Your task to perform on an android device: find photos in the google photos app Image 0: 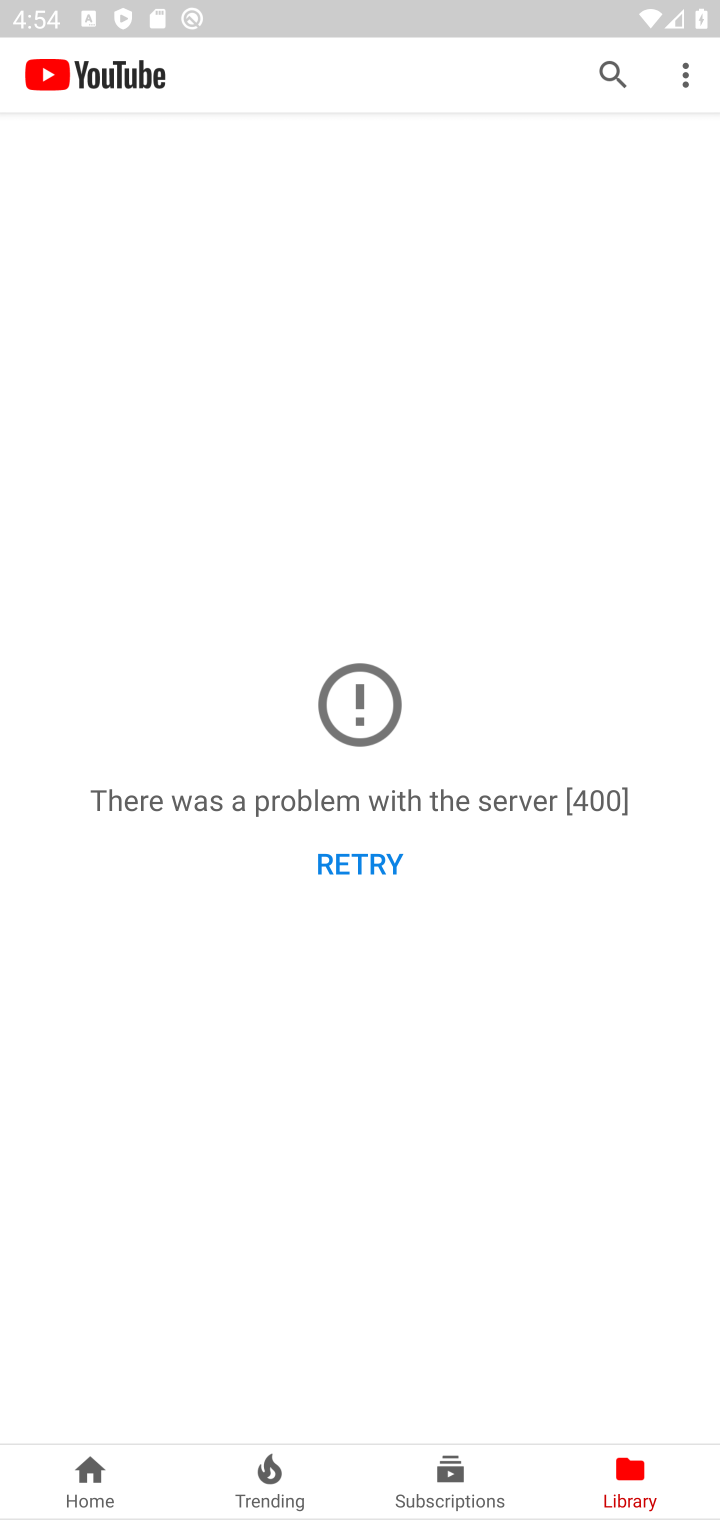
Step 0: press home button
Your task to perform on an android device: find photos in the google photos app Image 1: 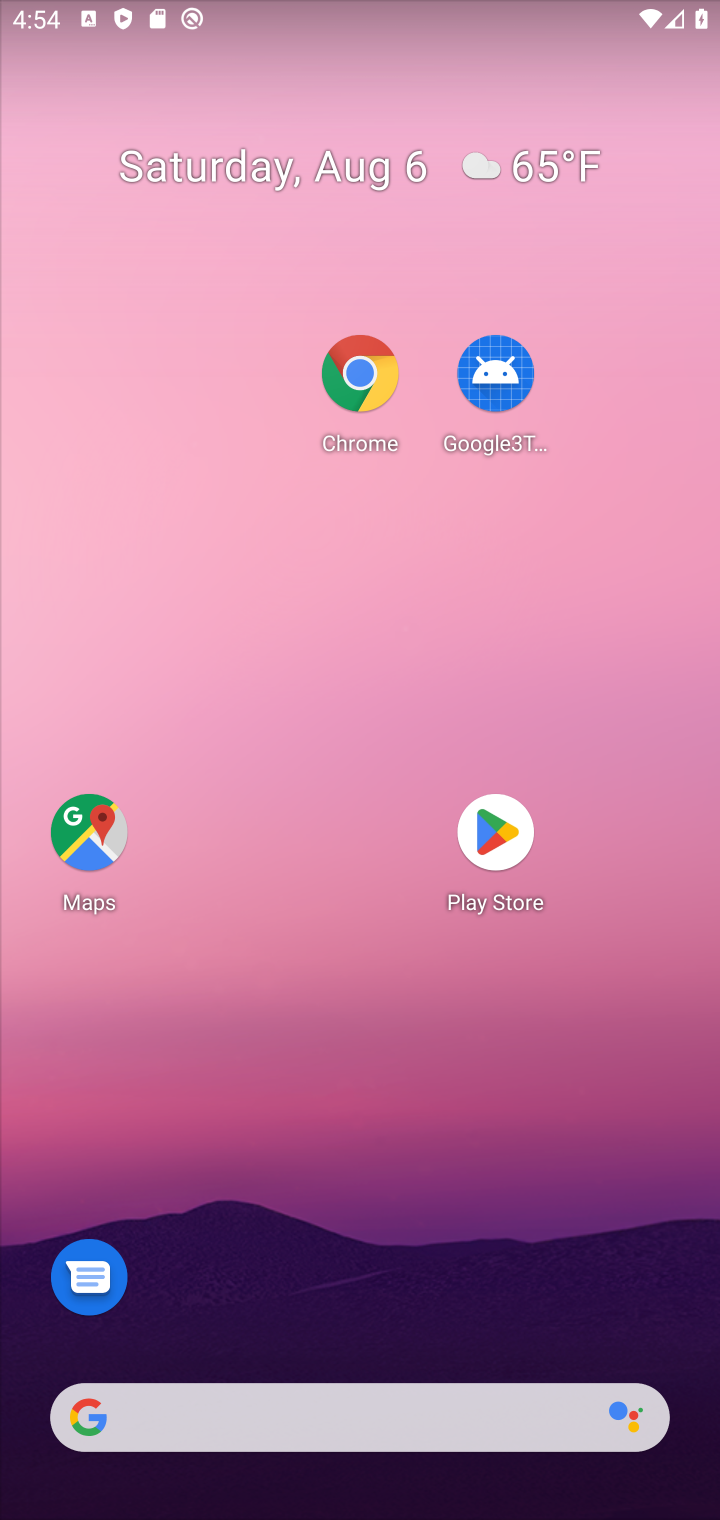
Step 1: drag from (303, 1423) to (365, 200)
Your task to perform on an android device: find photos in the google photos app Image 2: 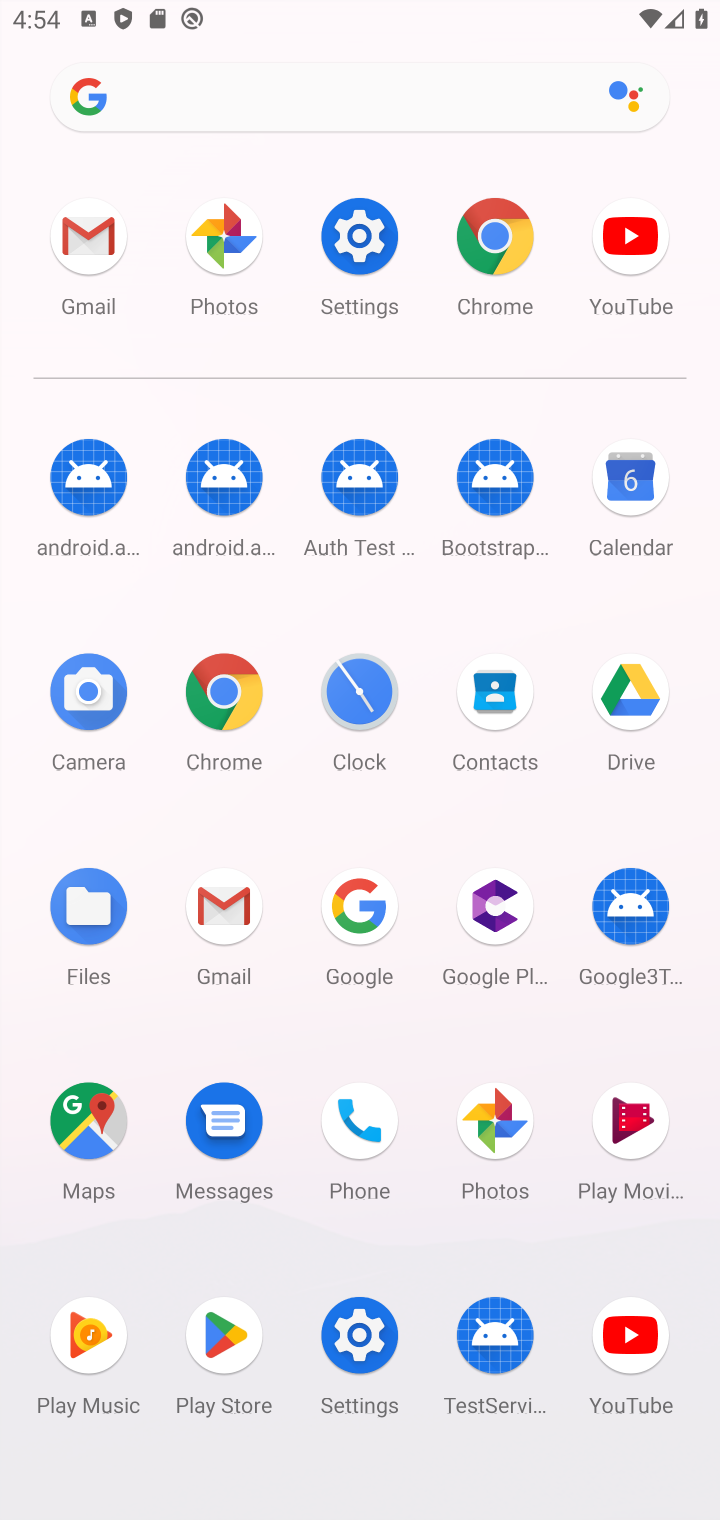
Step 2: click (502, 1116)
Your task to perform on an android device: find photos in the google photos app Image 3: 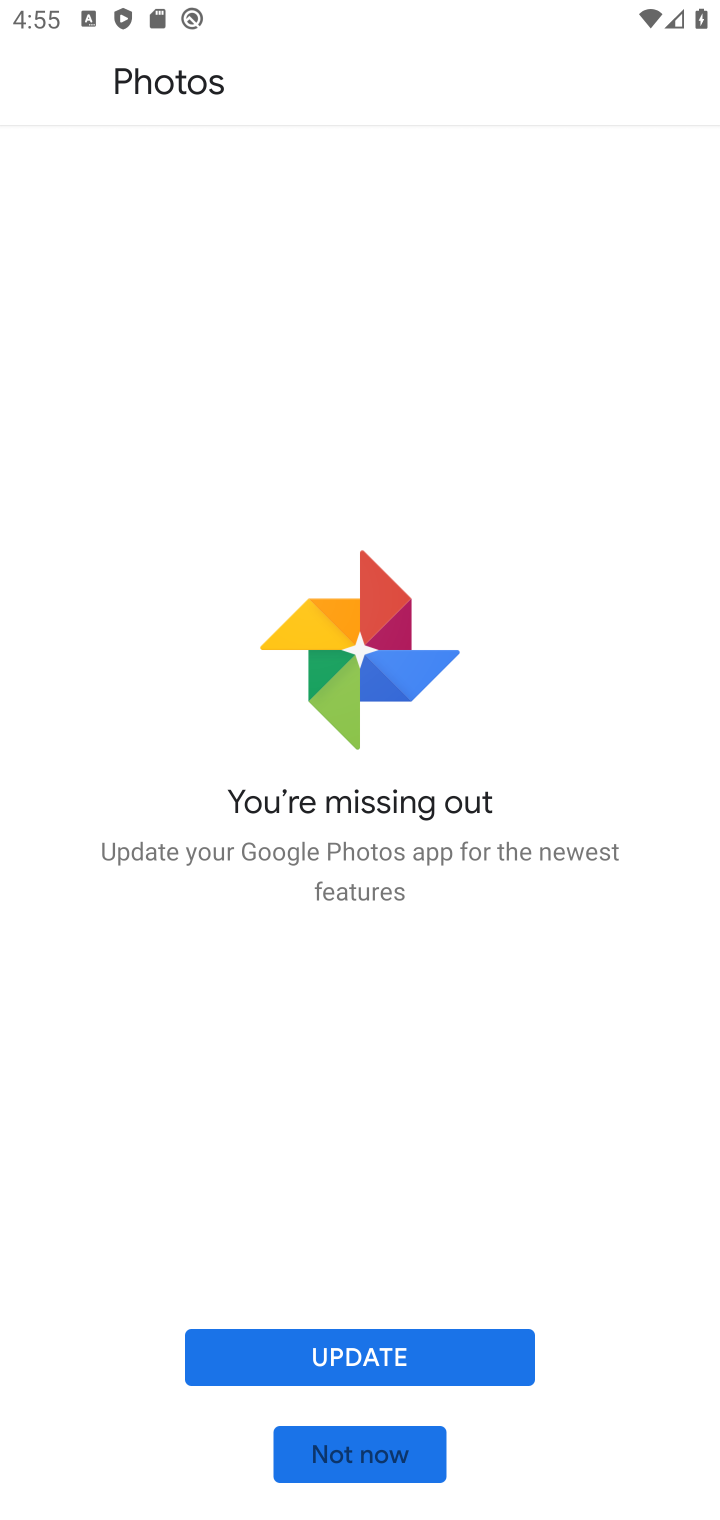
Step 3: click (323, 1356)
Your task to perform on an android device: find photos in the google photos app Image 4: 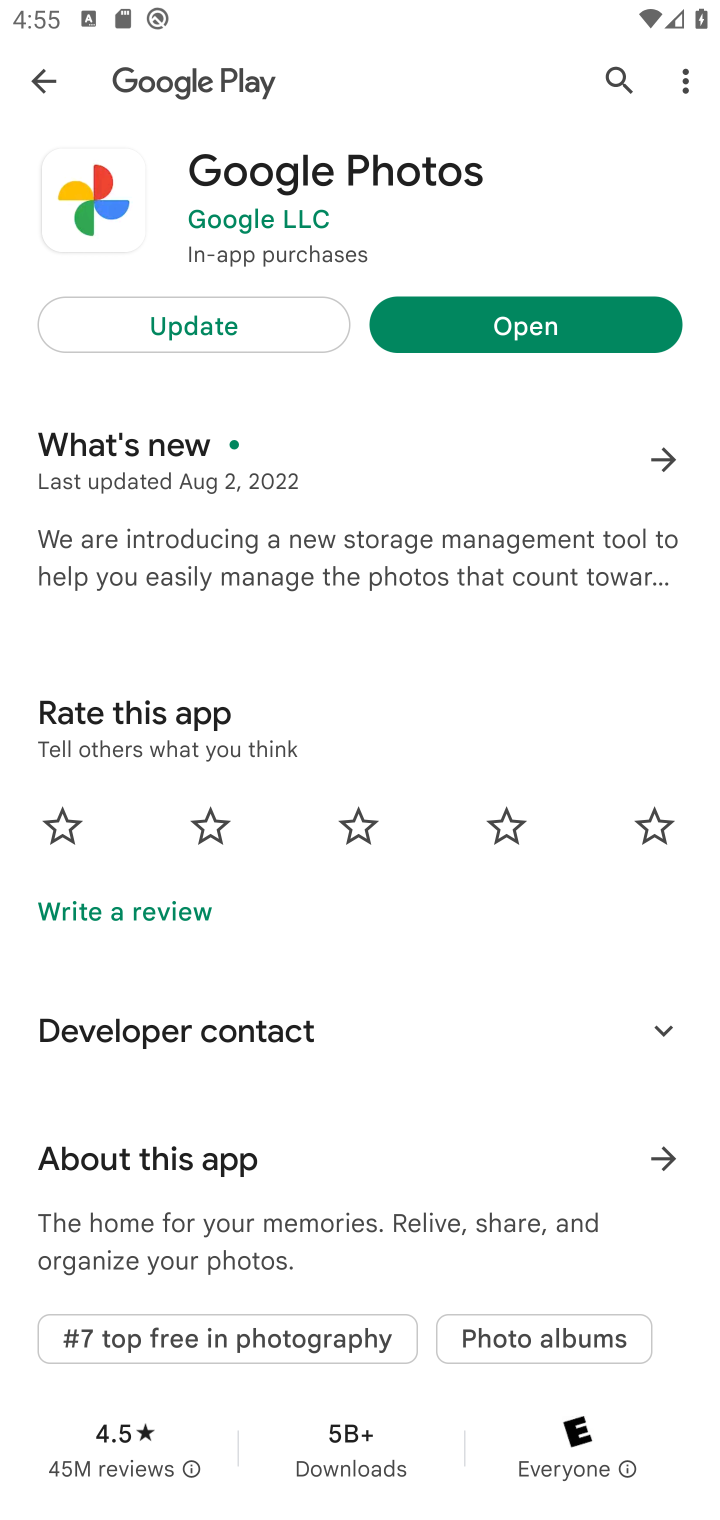
Step 4: click (257, 344)
Your task to perform on an android device: find photos in the google photos app Image 5: 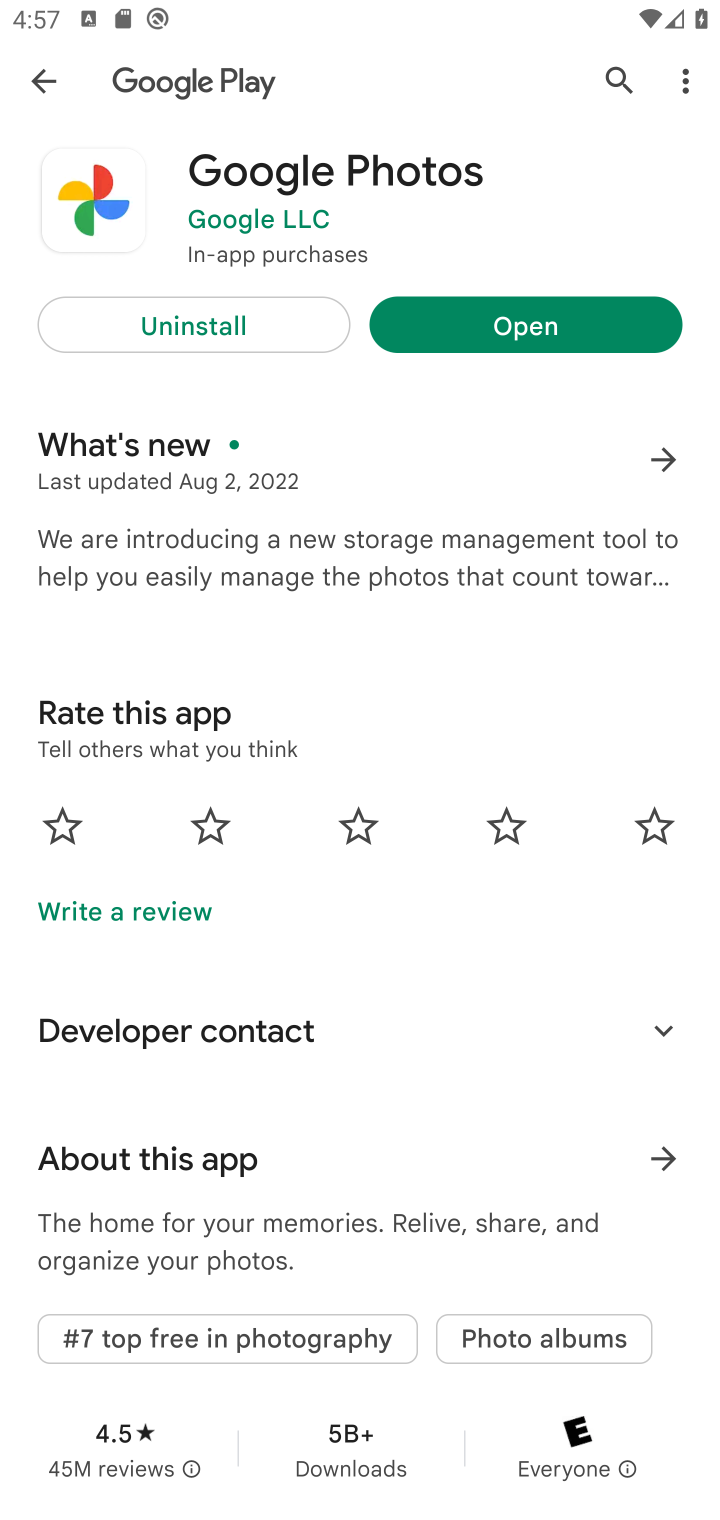
Step 5: click (513, 327)
Your task to perform on an android device: find photos in the google photos app Image 6: 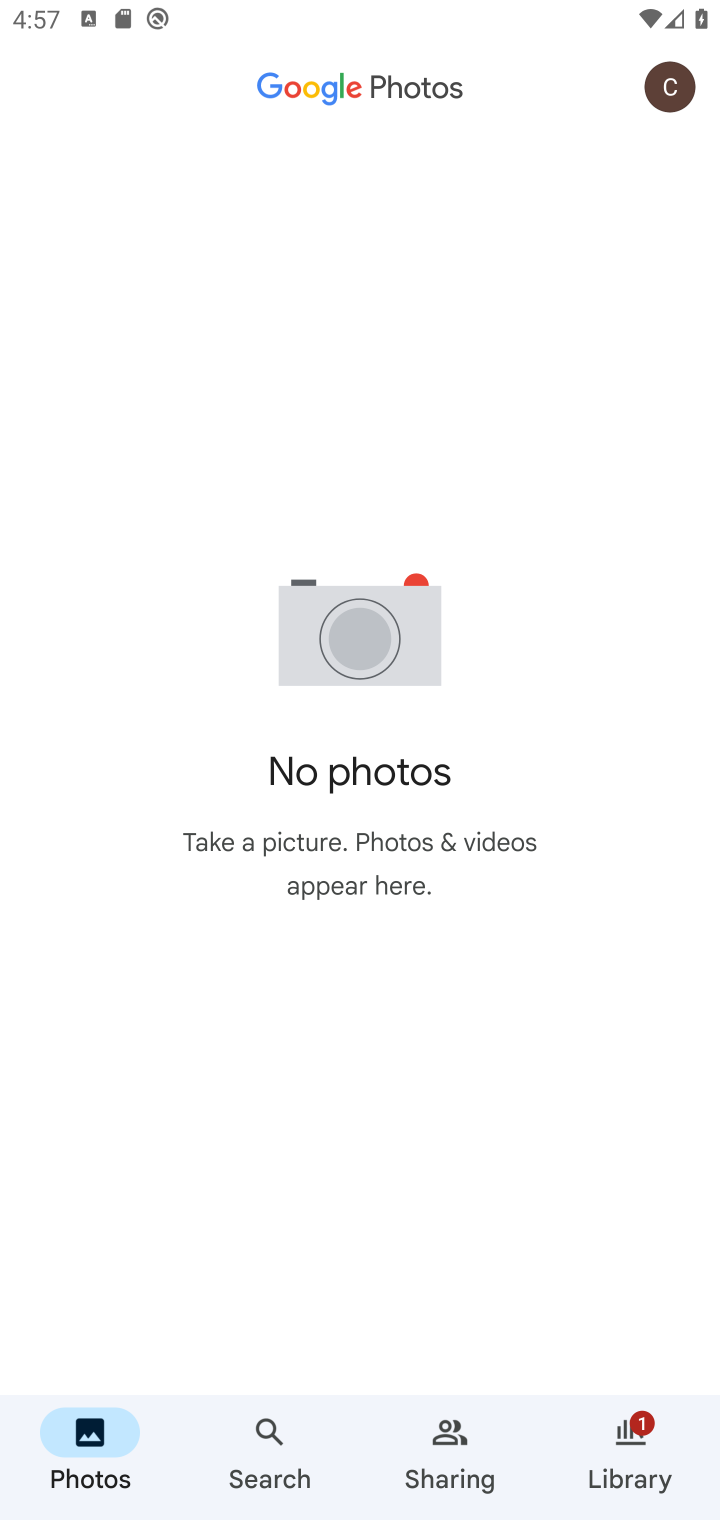
Step 6: task complete